Your task to perform on an android device: choose inbox layout in the gmail app Image 0: 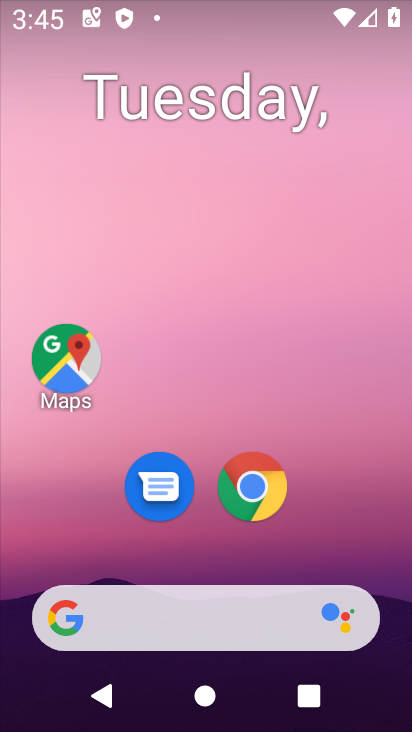
Step 0: drag from (202, 559) to (305, 0)
Your task to perform on an android device: choose inbox layout in the gmail app Image 1: 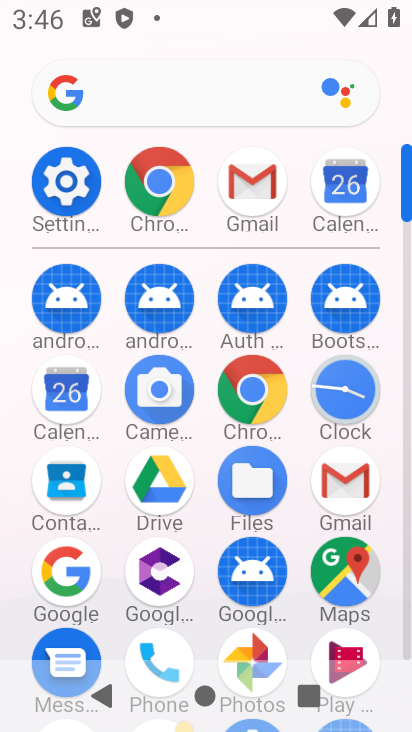
Step 1: click (268, 179)
Your task to perform on an android device: choose inbox layout in the gmail app Image 2: 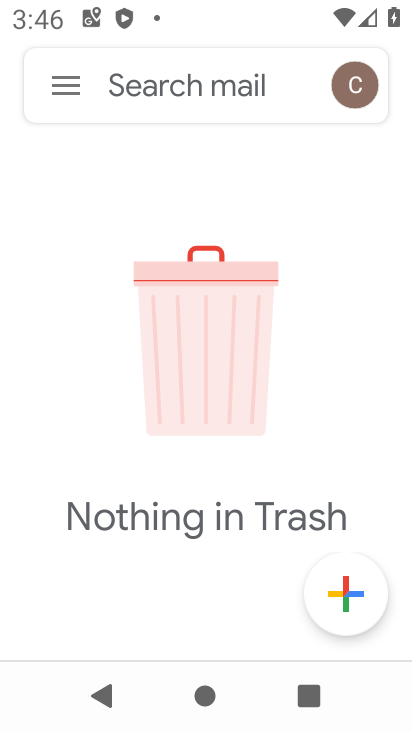
Step 2: click (52, 81)
Your task to perform on an android device: choose inbox layout in the gmail app Image 3: 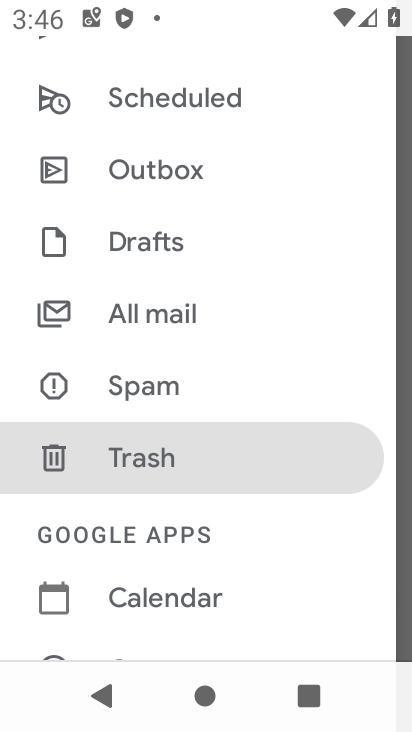
Step 3: drag from (135, 580) to (226, 137)
Your task to perform on an android device: choose inbox layout in the gmail app Image 4: 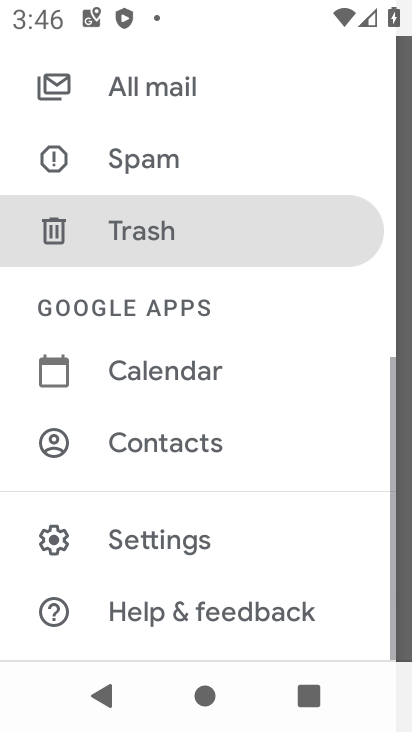
Step 4: click (147, 534)
Your task to perform on an android device: choose inbox layout in the gmail app Image 5: 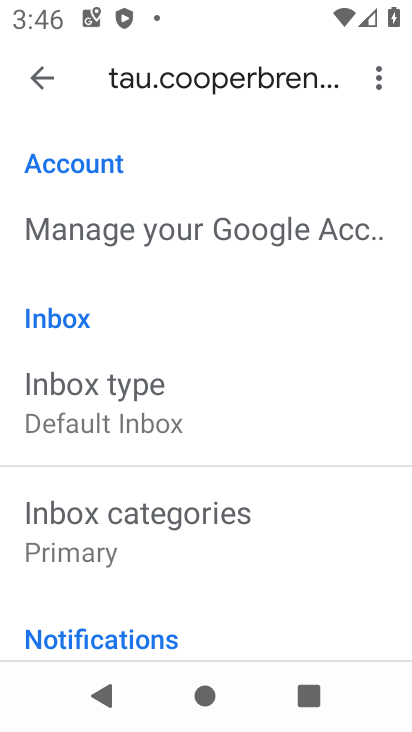
Step 5: click (94, 400)
Your task to perform on an android device: choose inbox layout in the gmail app Image 6: 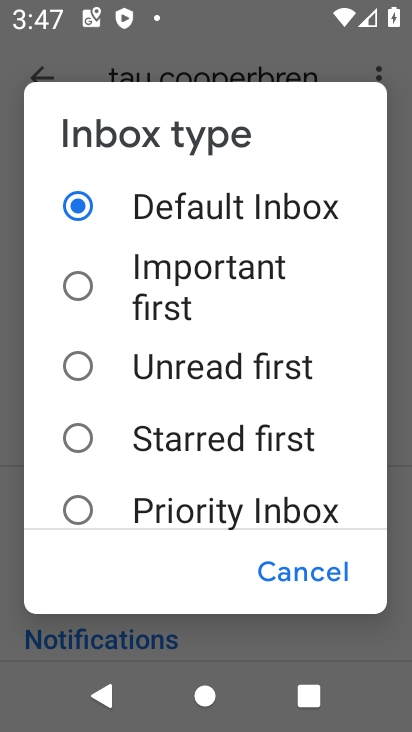
Step 6: click (75, 518)
Your task to perform on an android device: choose inbox layout in the gmail app Image 7: 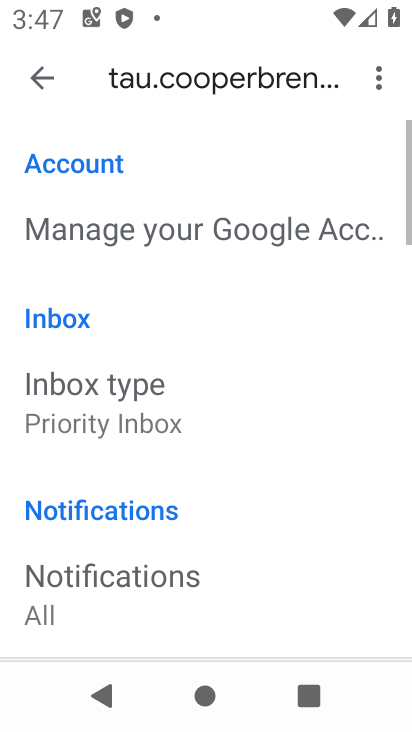
Step 7: task complete